Your task to perform on an android device: empty trash in the gmail app Image 0: 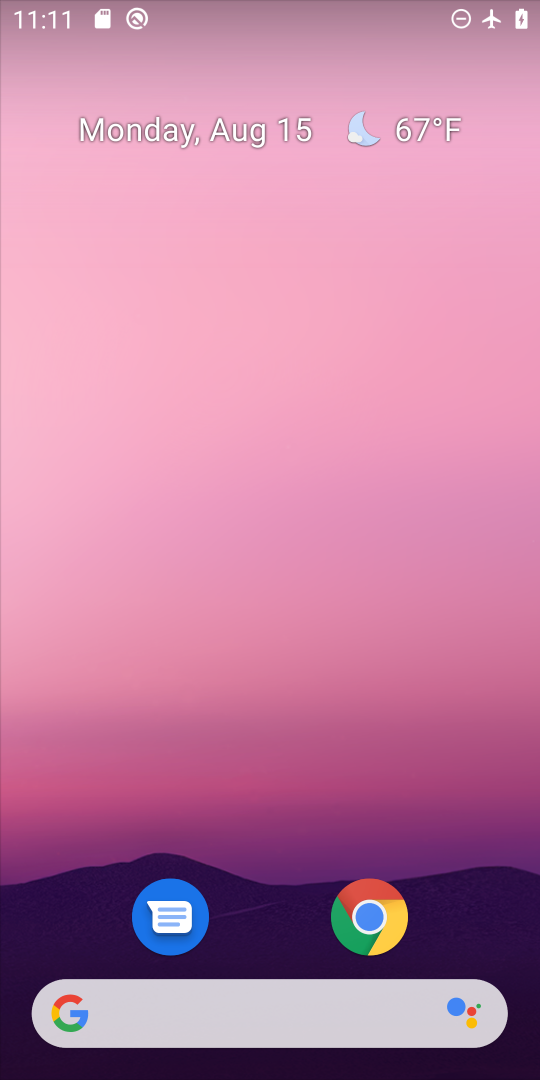
Step 0: drag from (296, 830) to (276, 8)
Your task to perform on an android device: empty trash in the gmail app Image 1: 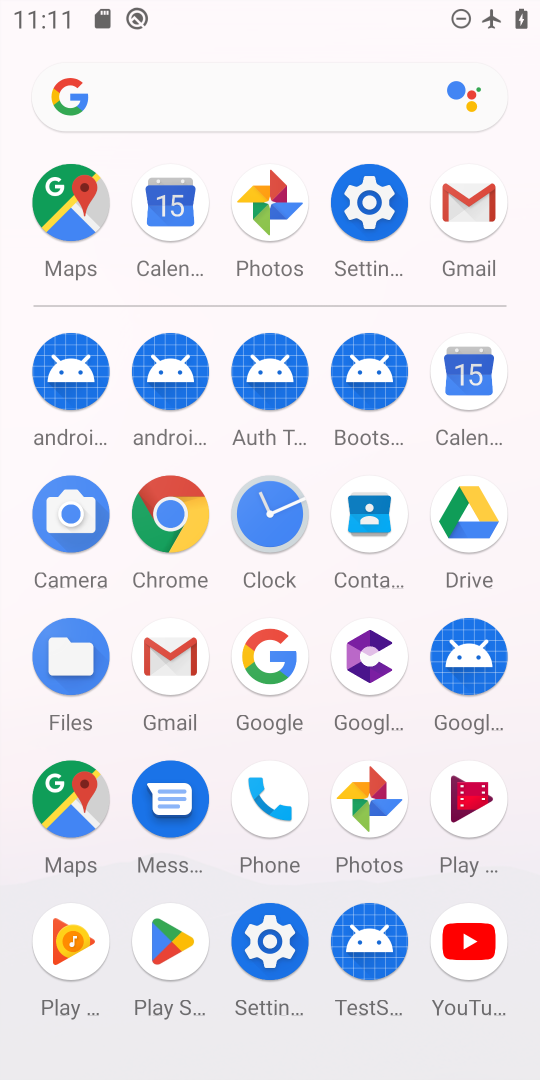
Step 1: click (461, 199)
Your task to perform on an android device: empty trash in the gmail app Image 2: 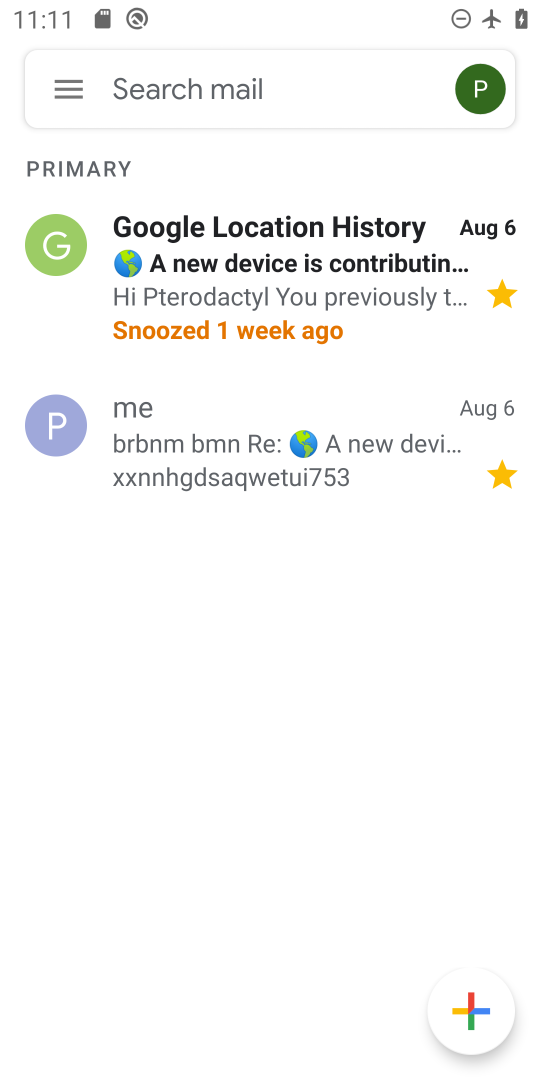
Step 2: click (69, 76)
Your task to perform on an android device: empty trash in the gmail app Image 3: 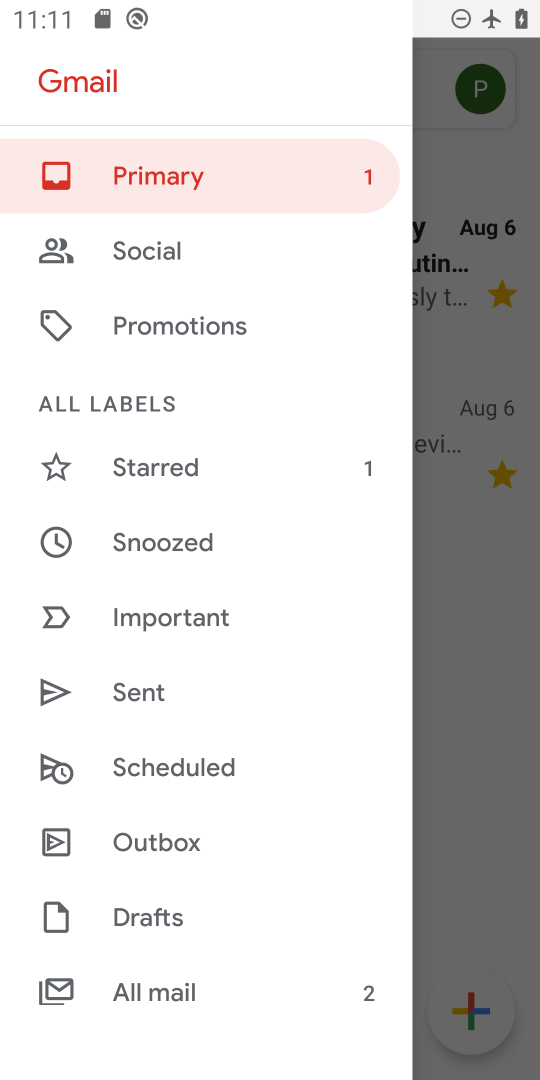
Step 3: drag from (167, 880) to (144, 296)
Your task to perform on an android device: empty trash in the gmail app Image 4: 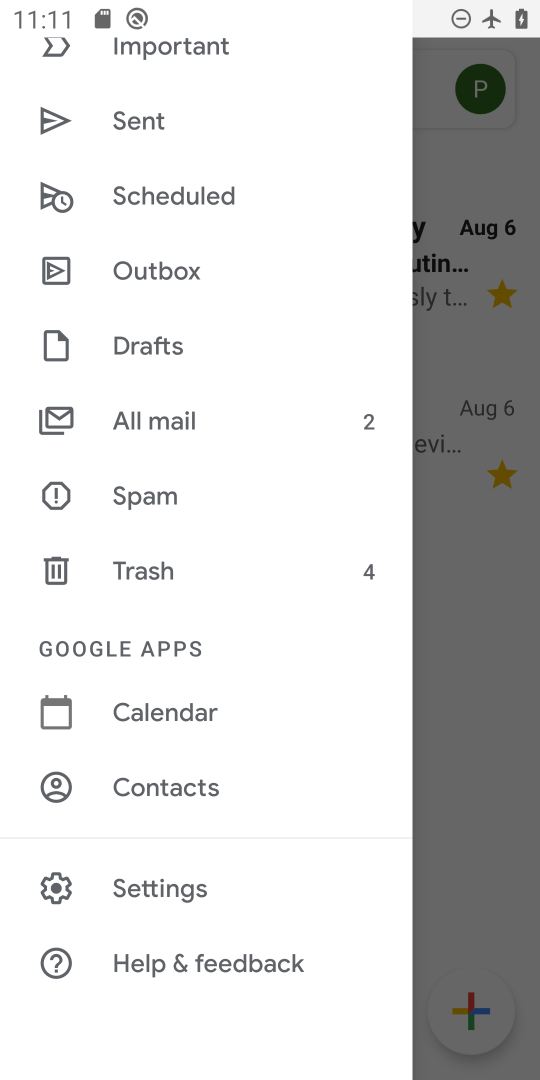
Step 4: click (160, 565)
Your task to perform on an android device: empty trash in the gmail app Image 5: 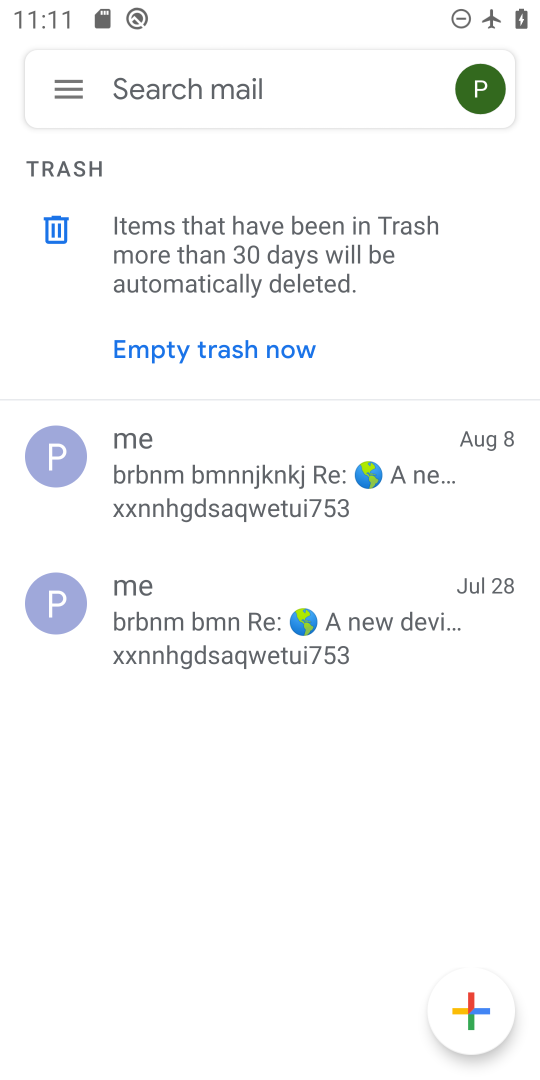
Step 5: click (288, 340)
Your task to perform on an android device: empty trash in the gmail app Image 6: 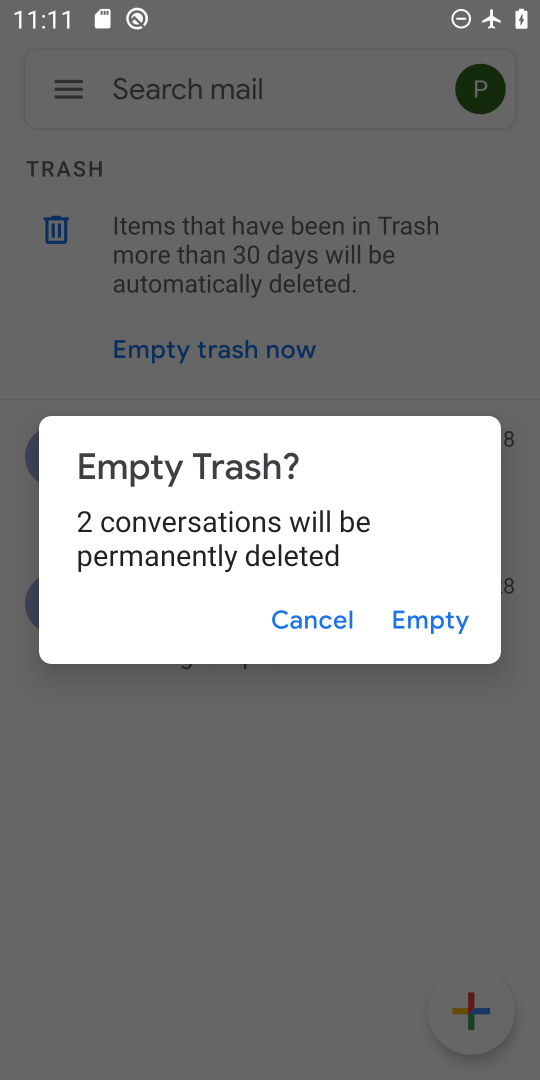
Step 6: click (451, 616)
Your task to perform on an android device: empty trash in the gmail app Image 7: 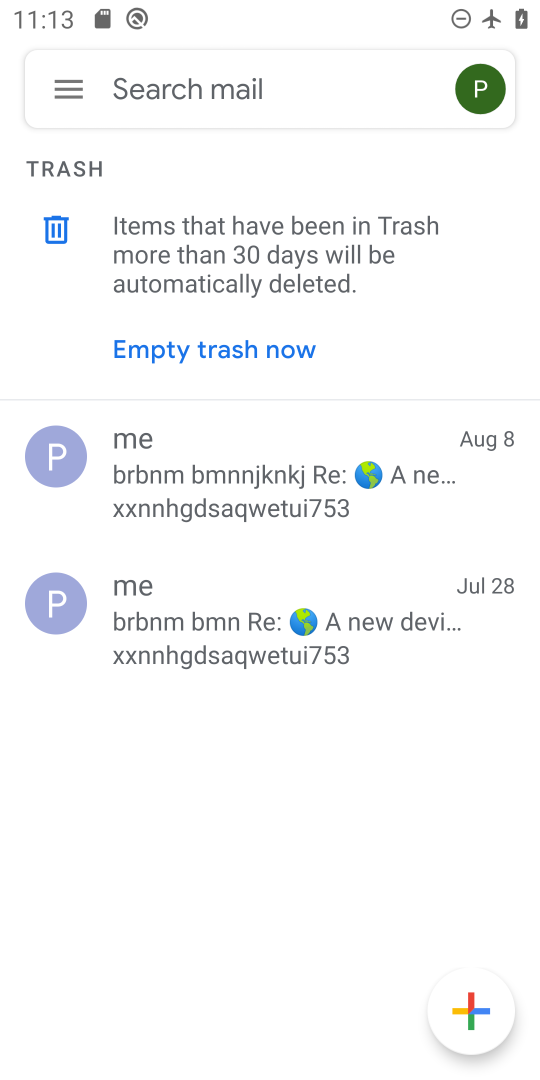
Step 7: task complete